Your task to perform on an android device: Open display settings Image 0: 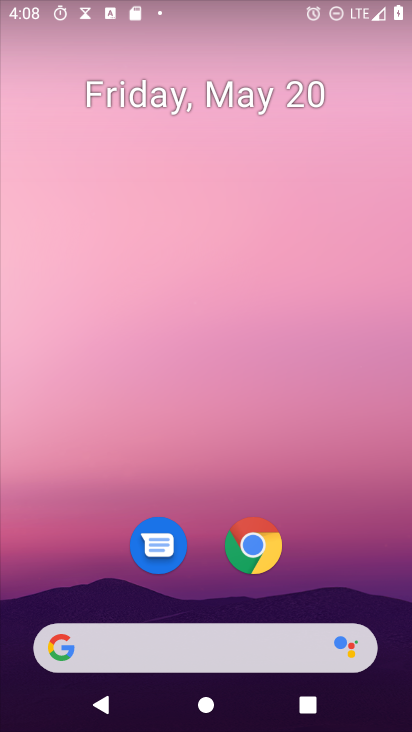
Step 0: drag from (304, 616) to (310, 111)
Your task to perform on an android device: Open display settings Image 1: 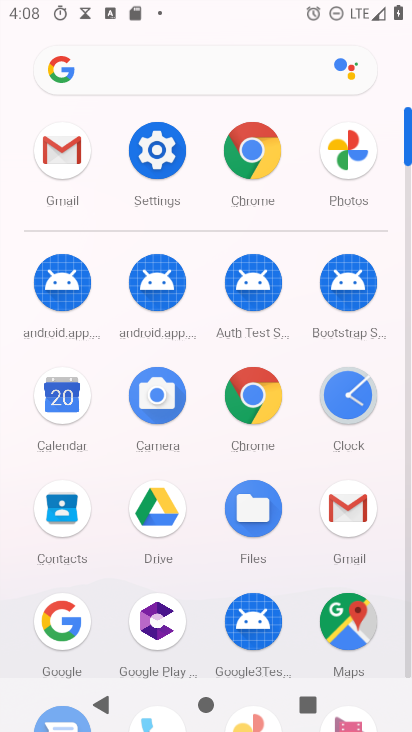
Step 1: click (142, 135)
Your task to perform on an android device: Open display settings Image 2: 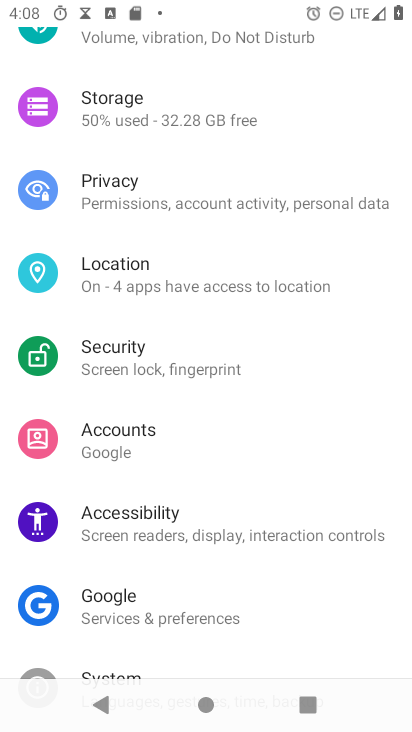
Step 2: drag from (210, 275) to (236, 677)
Your task to perform on an android device: Open display settings Image 3: 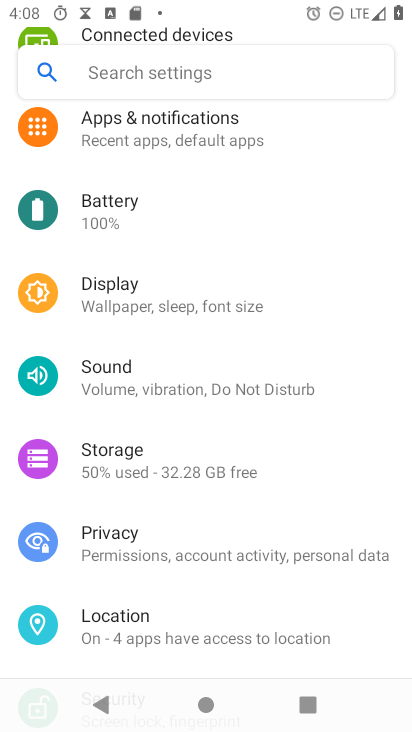
Step 3: click (176, 296)
Your task to perform on an android device: Open display settings Image 4: 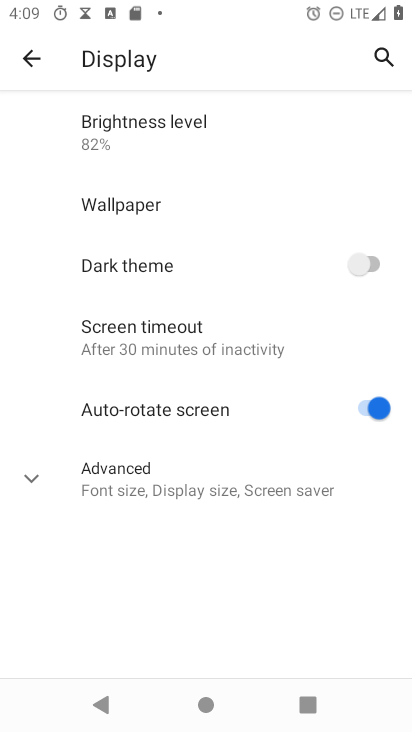
Step 4: task complete